Your task to perform on an android device: Clear all items from cart on bestbuy.com. Search for "apple airpods pro" on bestbuy.com, select the first entry, and add it to the cart. Image 0: 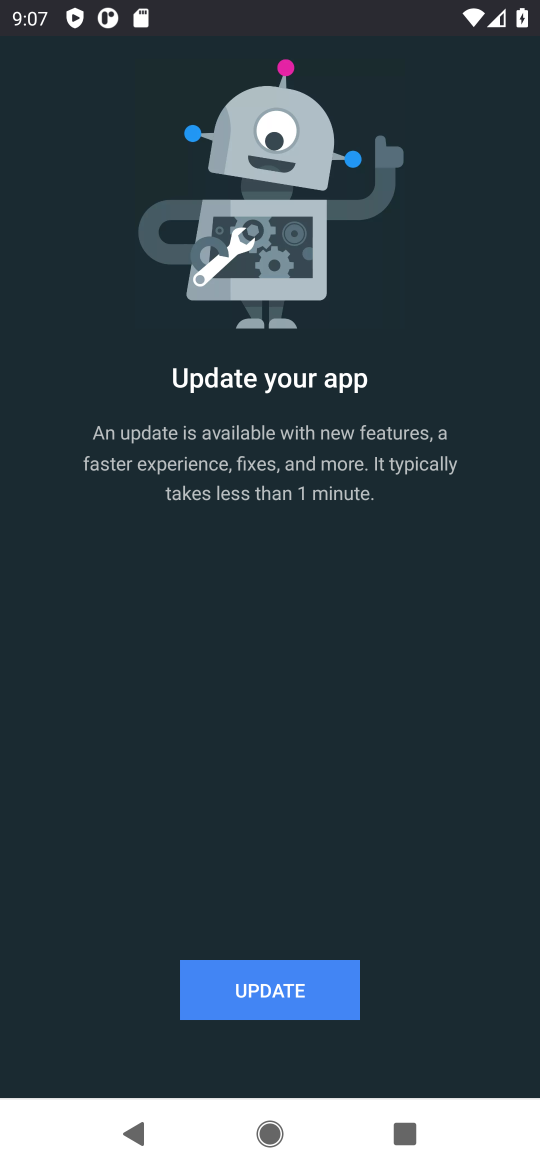
Step 0: press home button
Your task to perform on an android device: Clear all items from cart on bestbuy.com. Search for "apple airpods pro" on bestbuy.com, select the first entry, and add it to the cart. Image 1: 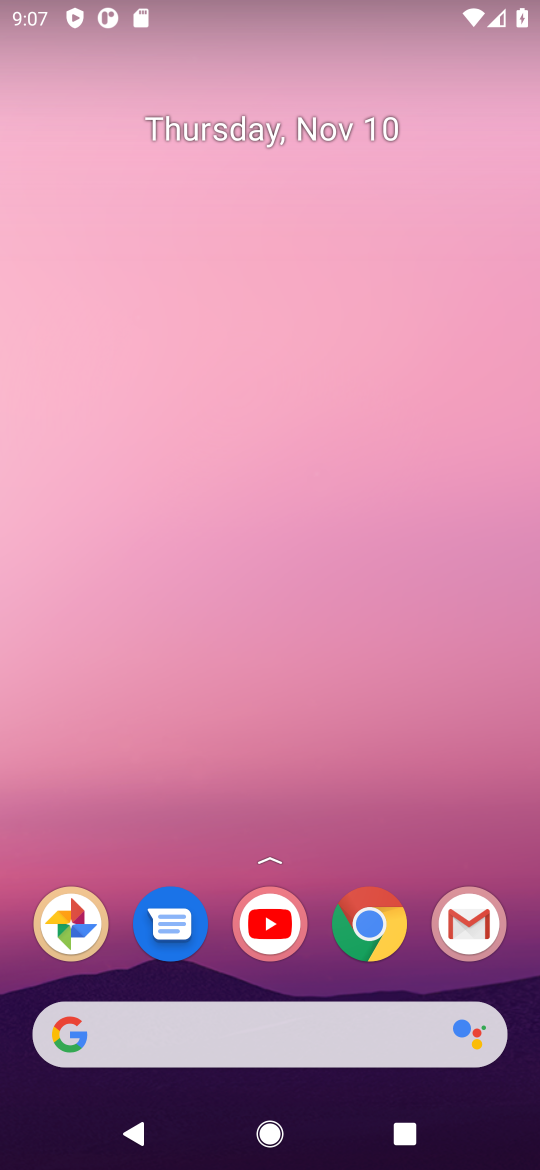
Step 1: click (371, 928)
Your task to perform on an android device: Clear all items from cart on bestbuy.com. Search for "apple airpods pro" on bestbuy.com, select the first entry, and add it to the cart. Image 2: 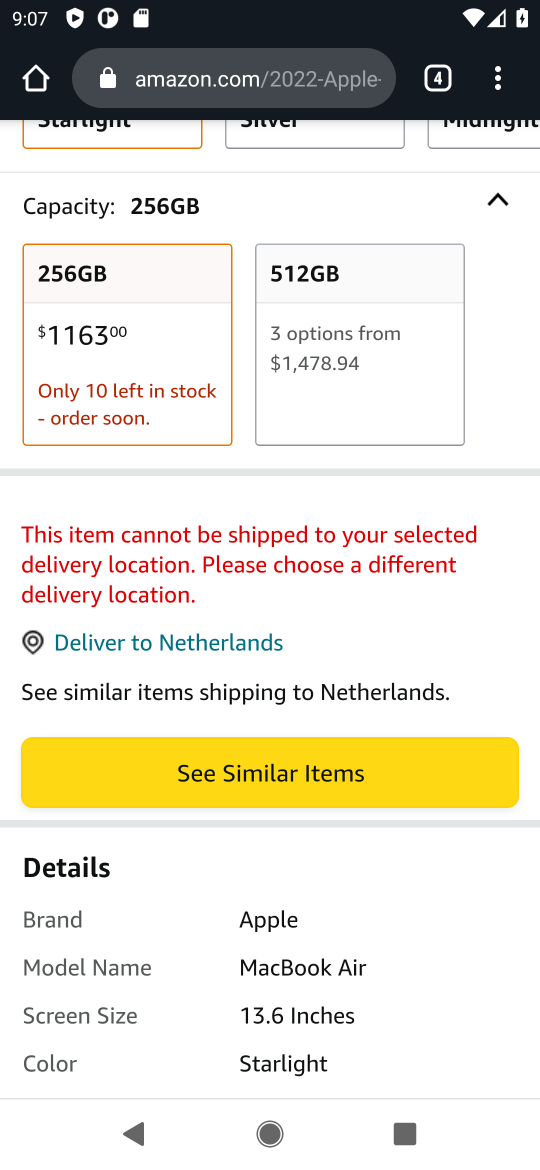
Step 2: click (228, 79)
Your task to perform on an android device: Clear all items from cart on bestbuy.com. Search for "apple airpods pro" on bestbuy.com, select the first entry, and add it to the cart. Image 3: 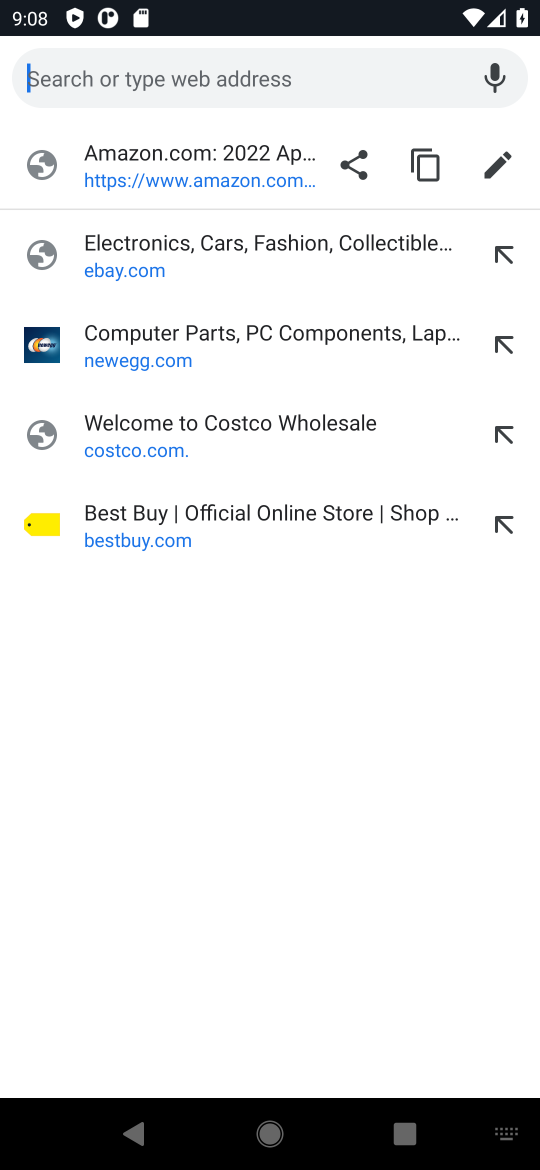
Step 3: click (134, 567)
Your task to perform on an android device: Clear all items from cart on bestbuy.com. Search for "apple airpods pro" on bestbuy.com, select the first entry, and add it to the cart. Image 4: 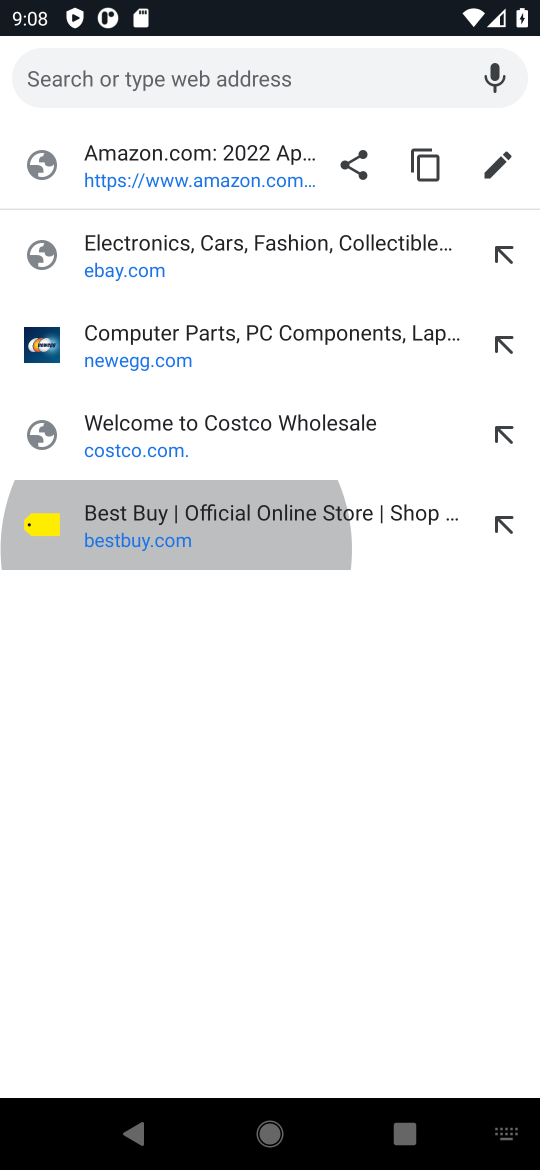
Step 4: click (134, 536)
Your task to perform on an android device: Clear all items from cart on bestbuy.com. Search for "apple airpods pro" on bestbuy.com, select the first entry, and add it to the cart. Image 5: 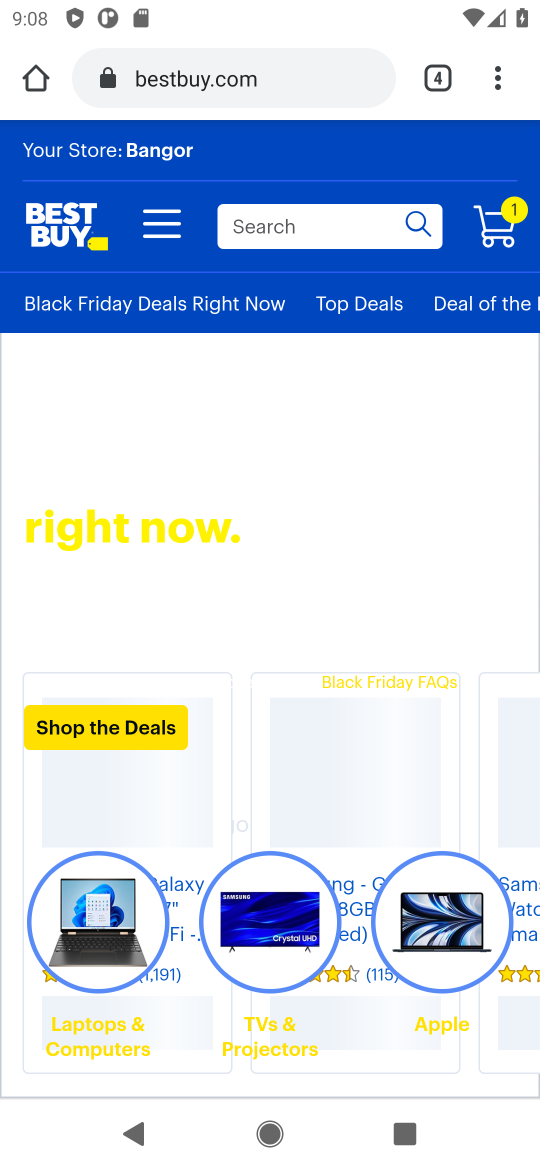
Step 5: click (501, 228)
Your task to perform on an android device: Clear all items from cart on bestbuy.com. Search for "apple airpods pro" on bestbuy.com, select the first entry, and add it to the cart. Image 6: 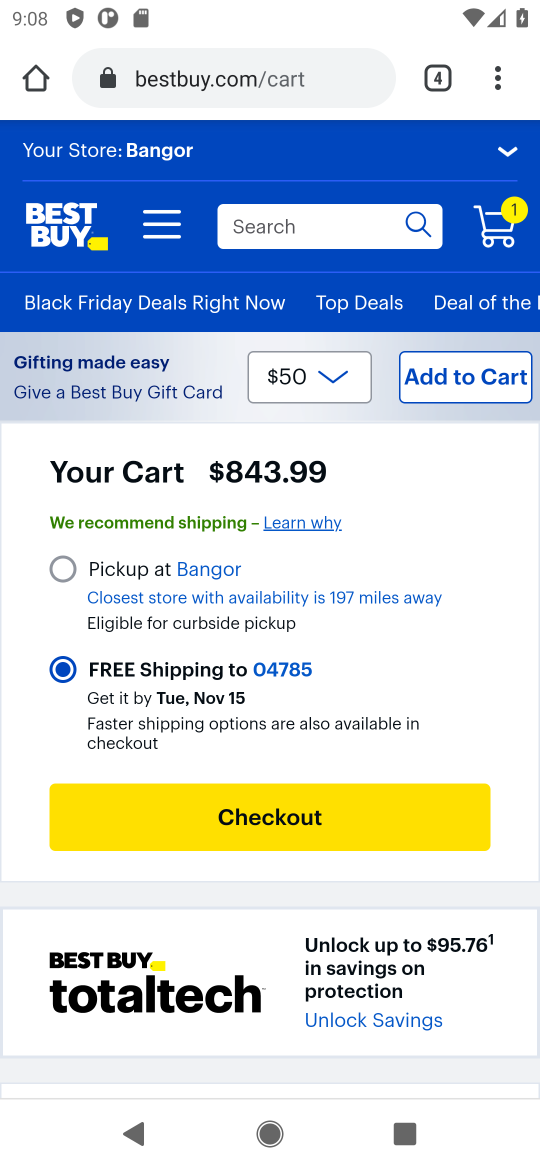
Step 6: drag from (265, 742) to (232, 304)
Your task to perform on an android device: Clear all items from cart on bestbuy.com. Search for "apple airpods pro" on bestbuy.com, select the first entry, and add it to the cart. Image 7: 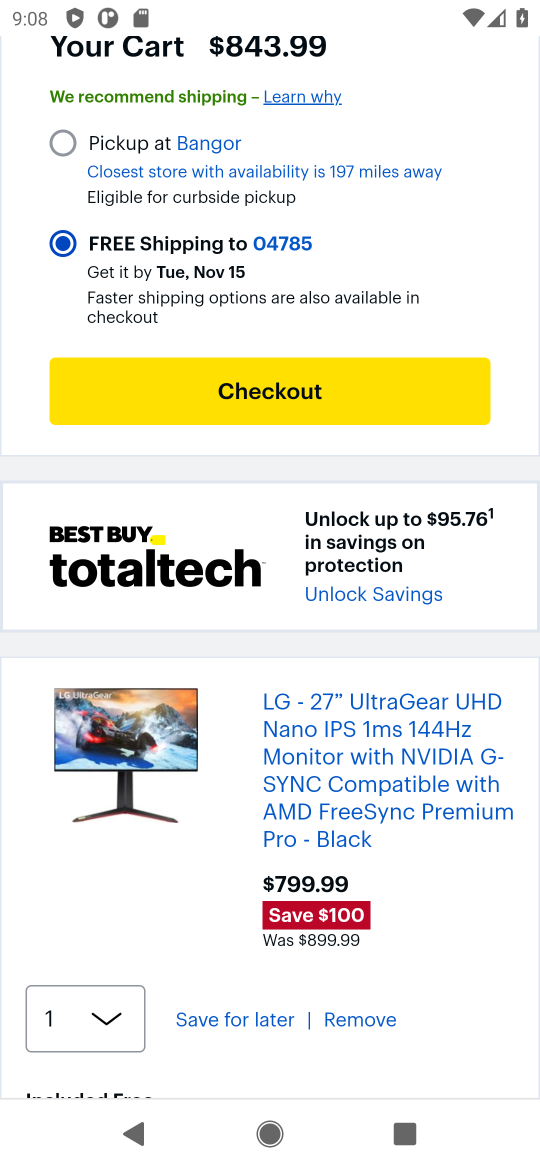
Step 7: drag from (223, 819) to (230, 466)
Your task to perform on an android device: Clear all items from cart on bestbuy.com. Search for "apple airpods pro" on bestbuy.com, select the first entry, and add it to the cart. Image 8: 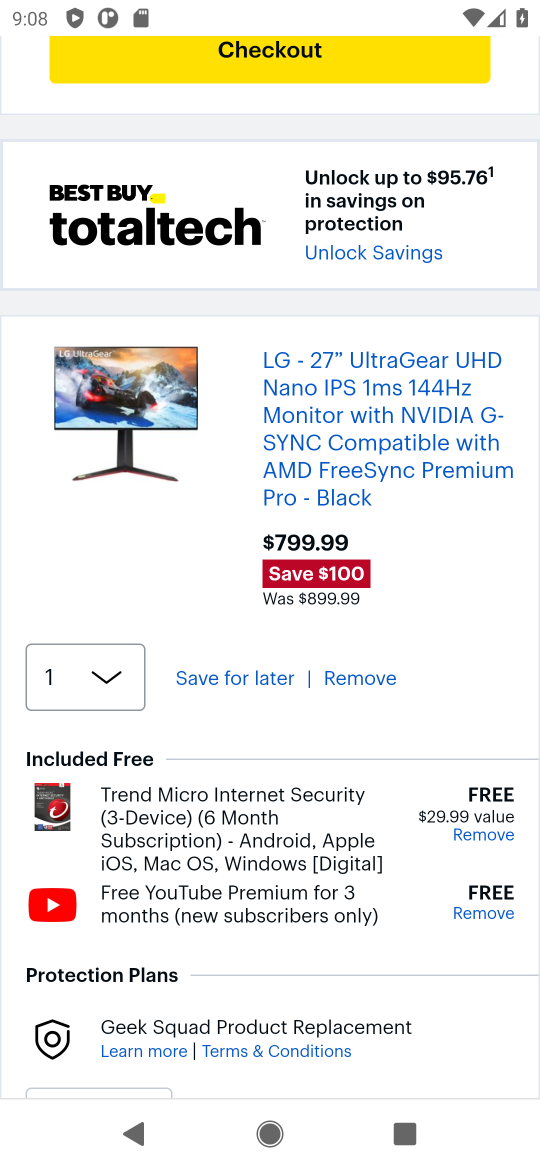
Step 8: click (347, 677)
Your task to perform on an android device: Clear all items from cart on bestbuy.com. Search for "apple airpods pro" on bestbuy.com, select the first entry, and add it to the cart. Image 9: 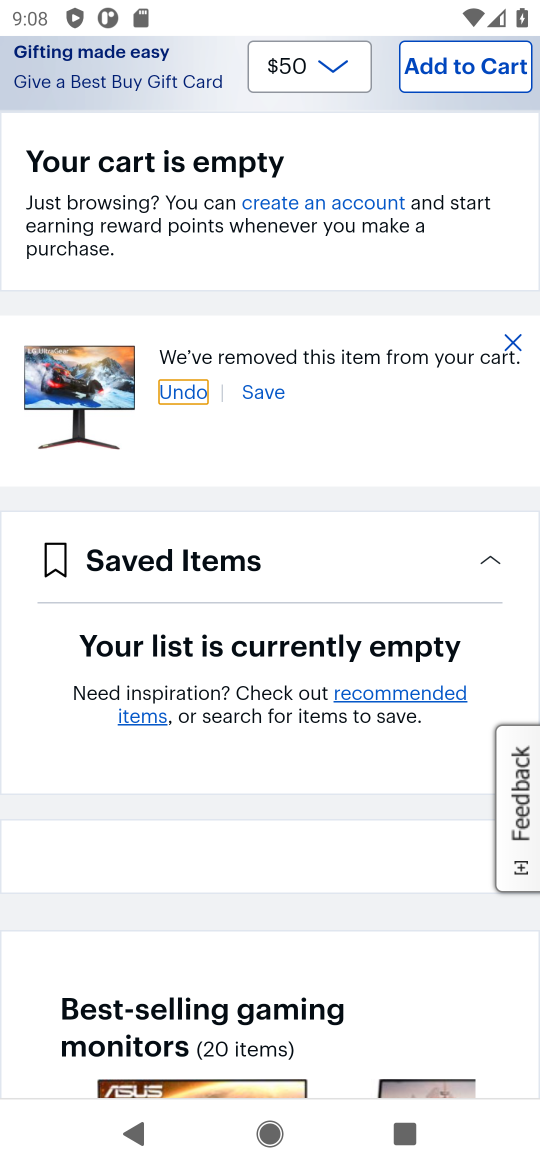
Step 9: drag from (403, 485) to (407, 882)
Your task to perform on an android device: Clear all items from cart on bestbuy.com. Search for "apple airpods pro" on bestbuy.com, select the first entry, and add it to the cart. Image 10: 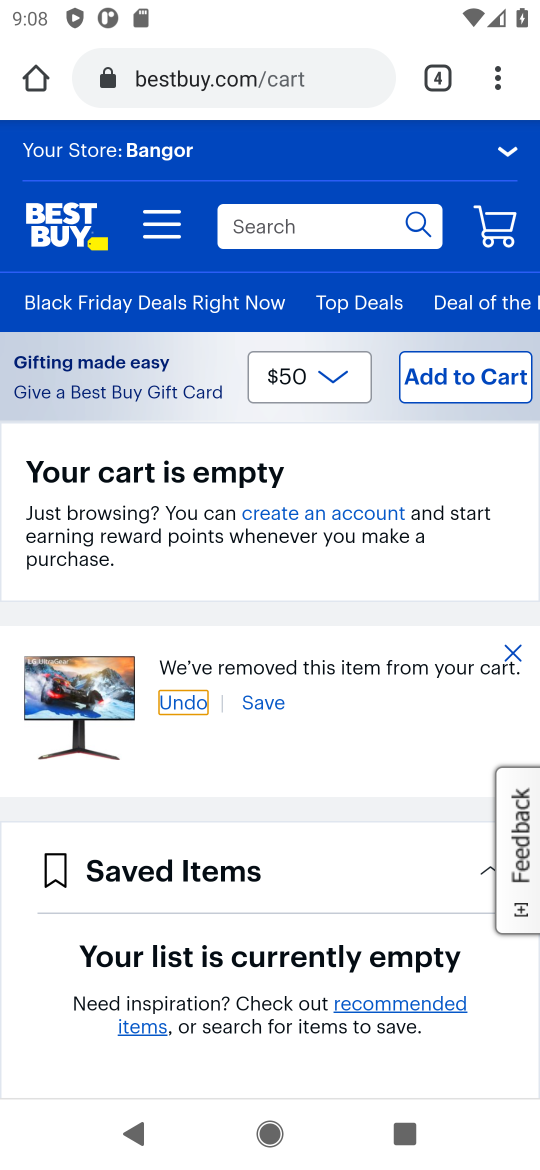
Step 10: click (283, 221)
Your task to perform on an android device: Clear all items from cart on bestbuy.com. Search for "apple airpods pro" on bestbuy.com, select the first entry, and add it to the cart. Image 11: 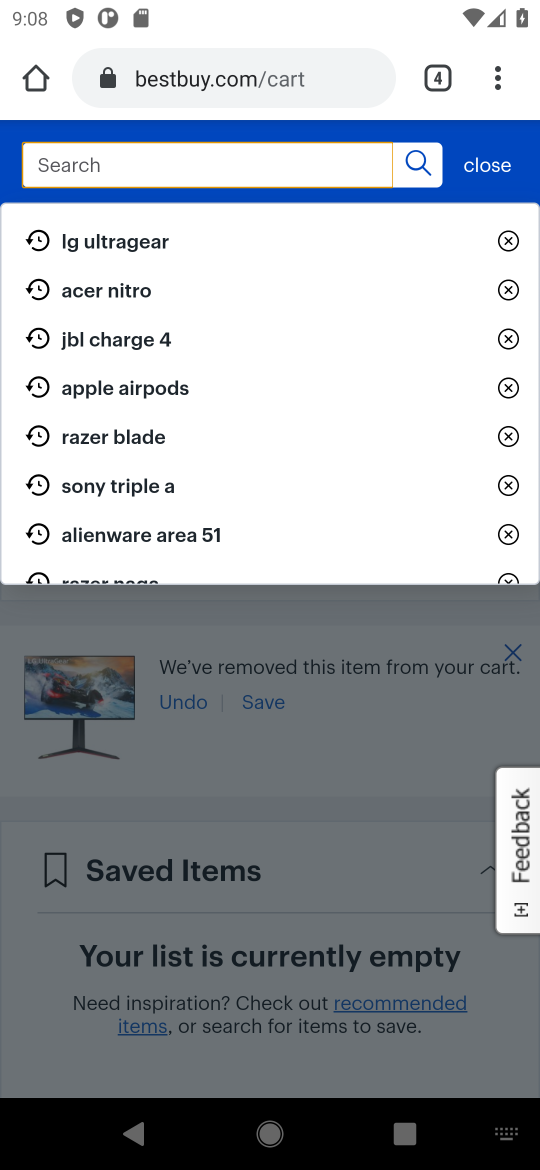
Step 11: type "apple airpods pro"
Your task to perform on an android device: Clear all items from cart on bestbuy.com. Search for "apple airpods pro" on bestbuy.com, select the first entry, and add it to the cart. Image 12: 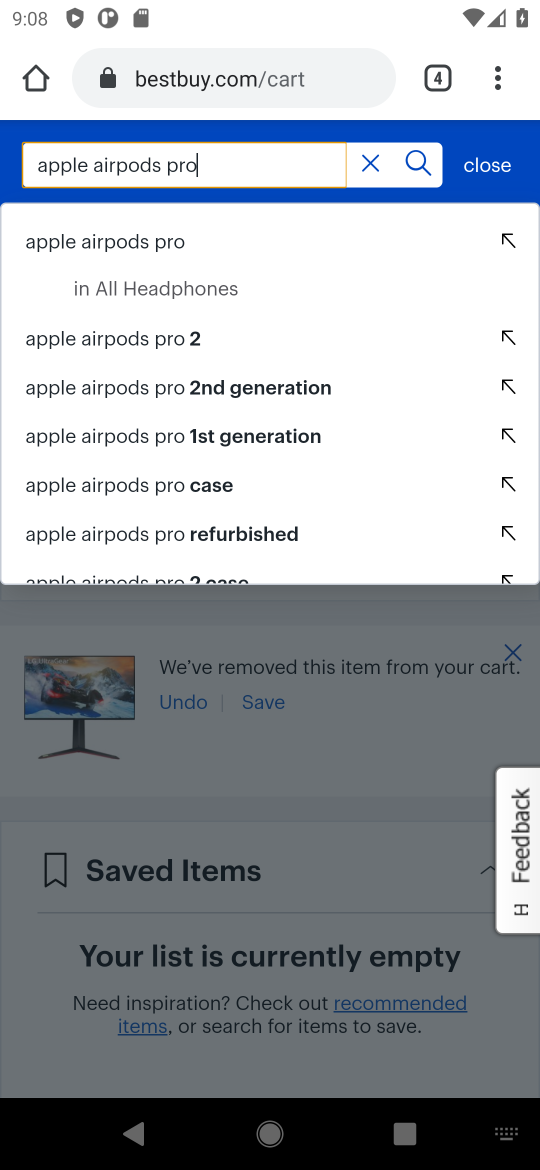
Step 12: click (122, 250)
Your task to perform on an android device: Clear all items from cart on bestbuy.com. Search for "apple airpods pro" on bestbuy.com, select the first entry, and add it to the cart. Image 13: 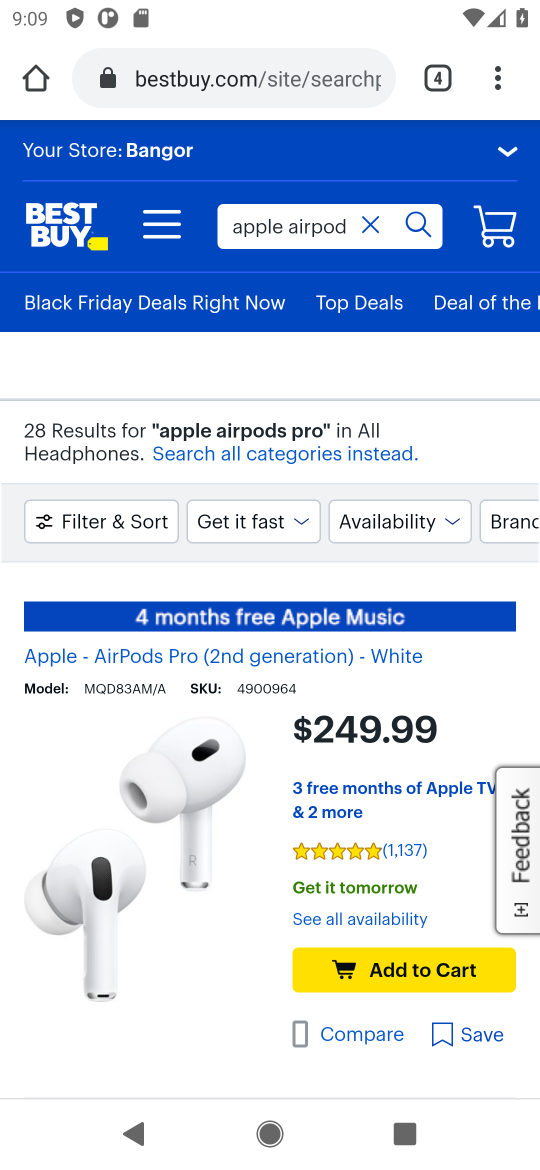
Step 13: drag from (245, 843) to (267, 585)
Your task to perform on an android device: Clear all items from cart on bestbuy.com. Search for "apple airpods pro" on bestbuy.com, select the first entry, and add it to the cart. Image 14: 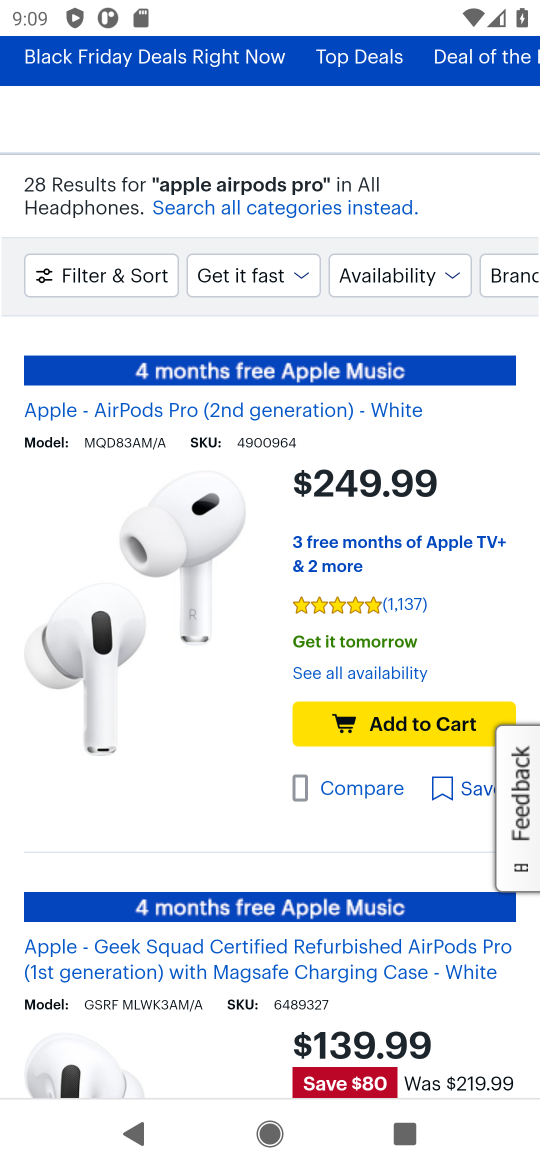
Step 14: click (407, 732)
Your task to perform on an android device: Clear all items from cart on bestbuy.com. Search for "apple airpods pro" on bestbuy.com, select the first entry, and add it to the cart. Image 15: 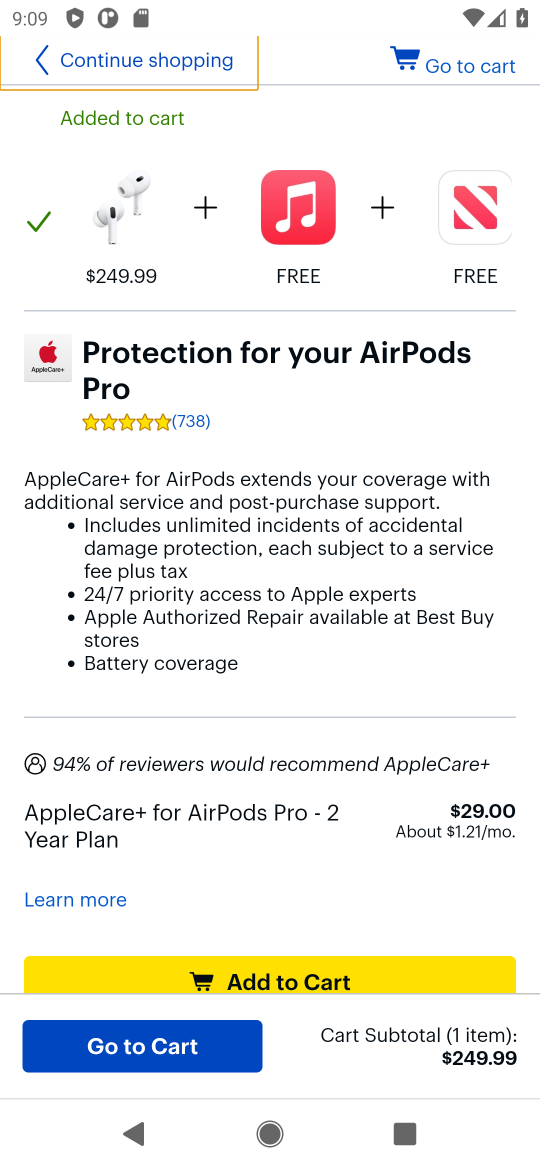
Step 15: task complete